Your task to perform on an android device: check data usage Image 0: 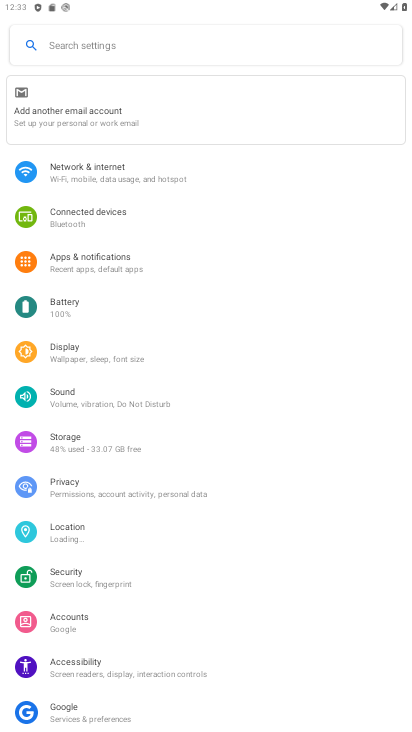
Step 0: click (118, 175)
Your task to perform on an android device: check data usage Image 1: 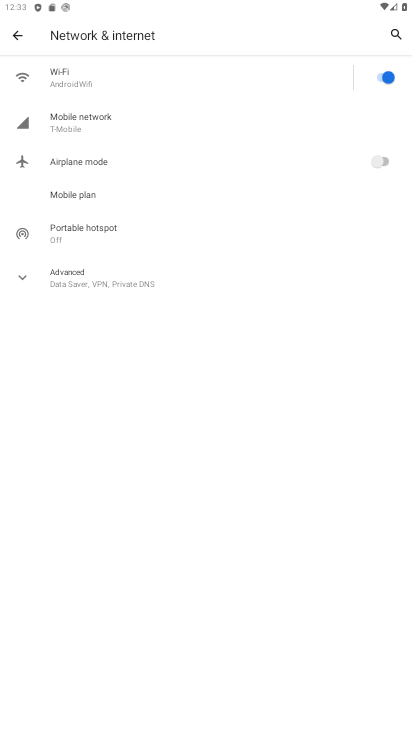
Step 1: click (86, 115)
Your task to perform on an android device: check data usage Image 2: 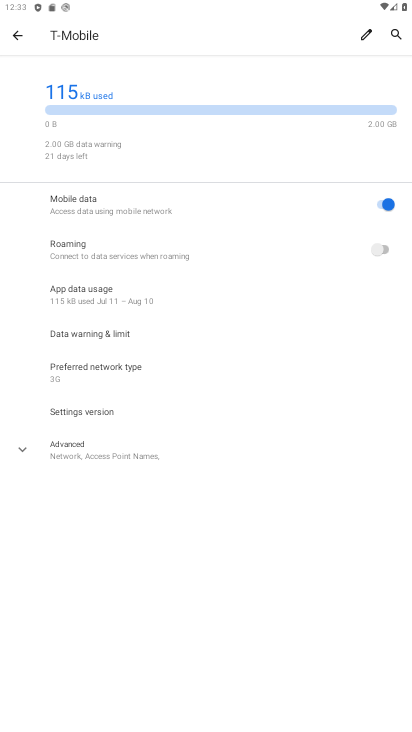
Step 2: click (105, 296)
Your task to perform on an android device: check data usage Image 3: 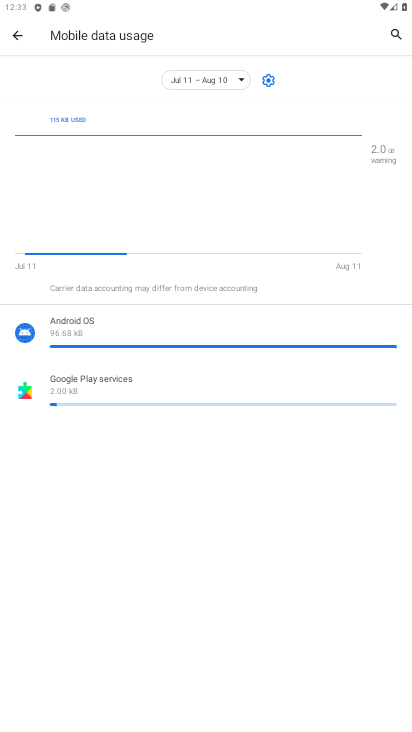
Step 3: task complete